Your task to perform on an android device: Open eBay Image 0: 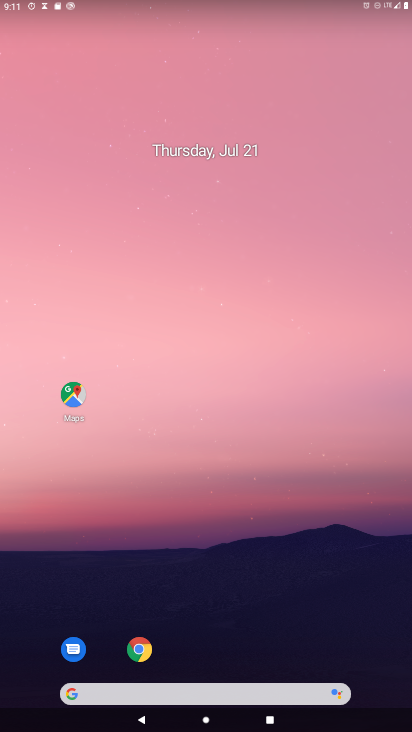
Step 0: drag from (355, 638) to (263, 55)
Your task to perform on an android device: Open eBay Image 1: 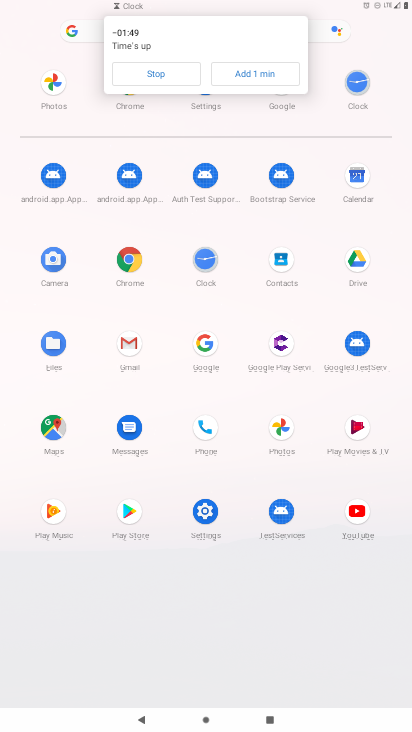
Step 1: click (207, 352)
Your task to perform on an android device: Open eBay Image 2: 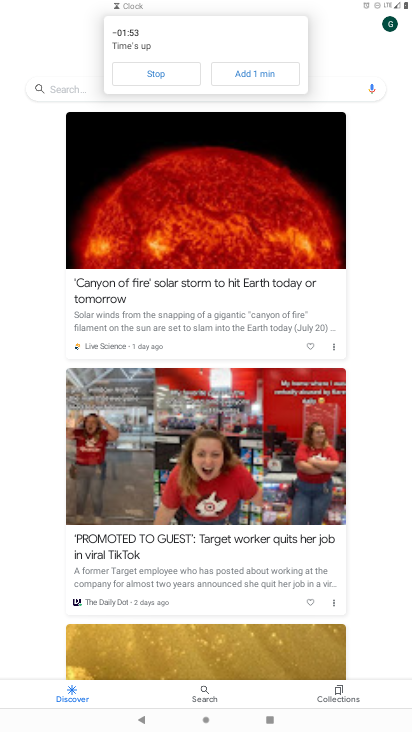
Step 2: click (121, 74)
Your task to perform on an android device: Open eBay Image 3: 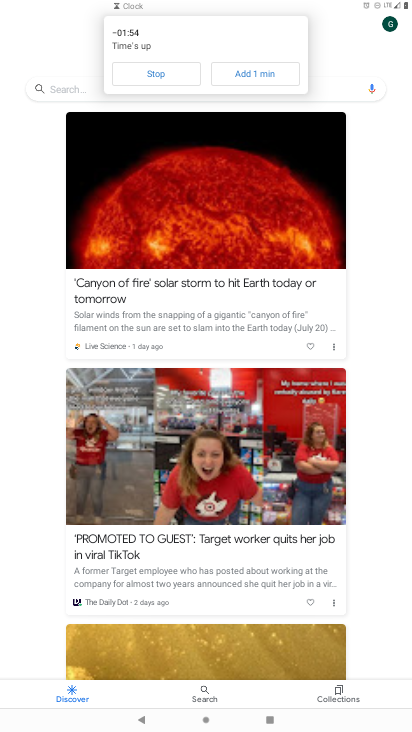
Step 3: click (57, 89)
Your task to perform on an android device: Open eBay Image 4: 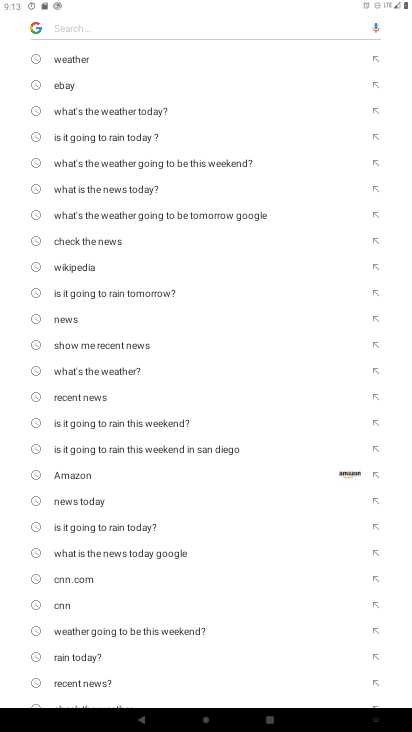
Step 4: click (56, 85)
Your task to perform on an android device: Open eBay Image 5: 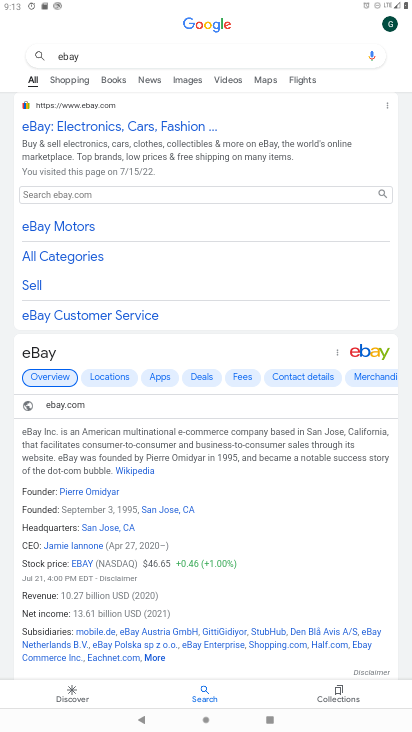
Step 5: task complete